Your task to perform on an android device: add a label to a message in the gmail app Image 0: 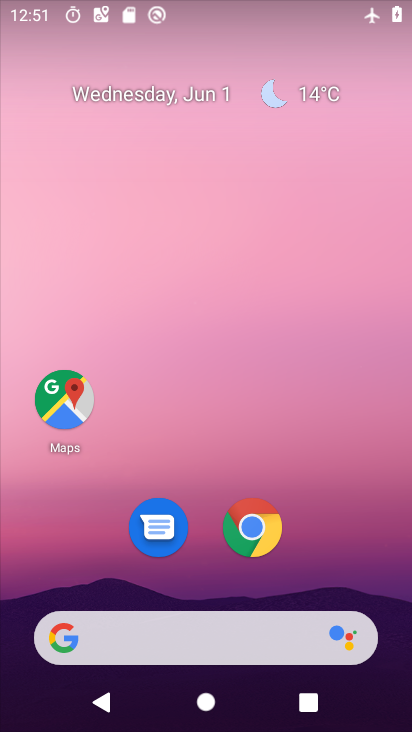
Step 0: drag from (349, 582) to (321, 18)
Your task to perform on an android device: add a label to a message in the gmail app Image 1: 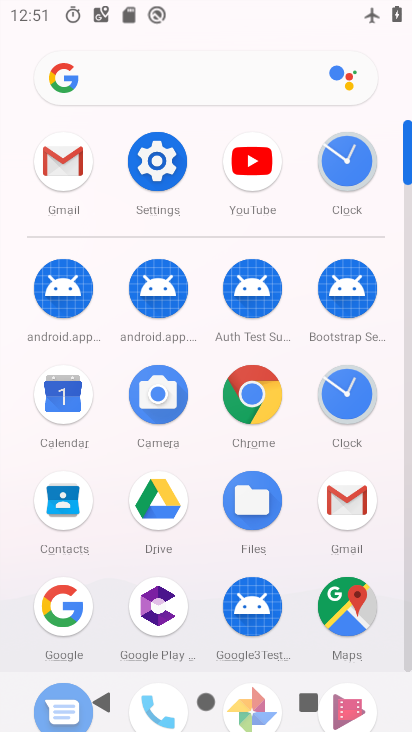
Step 1: click (51, 176)
Your task to perform on an android device: add a label to a message in the gmail app Image 2: 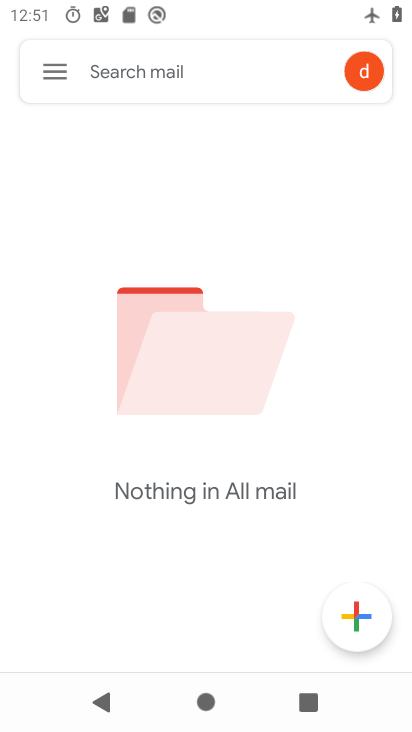
Step 2: task complete